Your task to perform on an android device: Go to Yahoo.com Image 0: 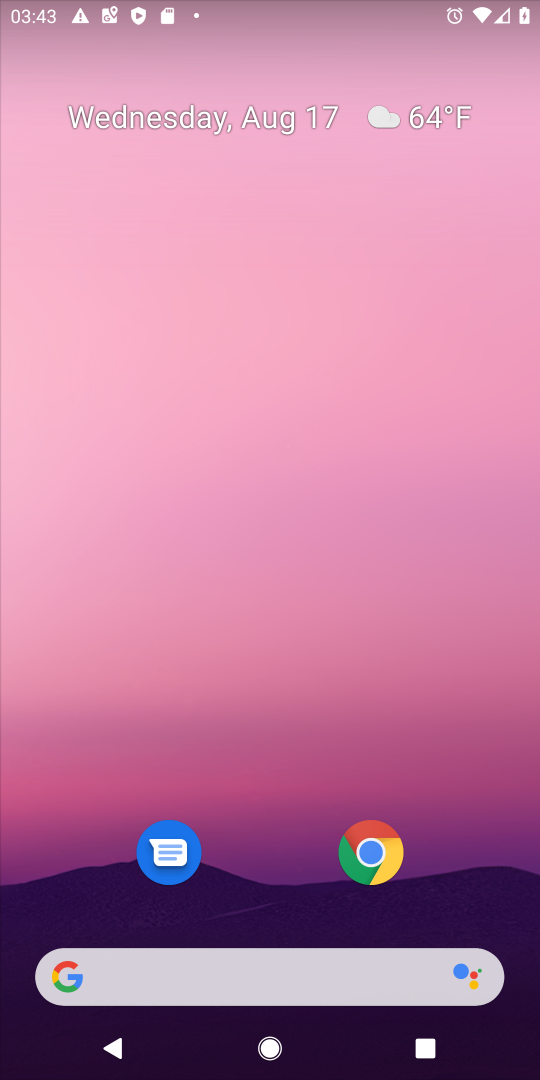
Step 0: drag from (254, 882) to (282, 32)
Your task to perform on an android device: Go to Yahoo.com Image 1: 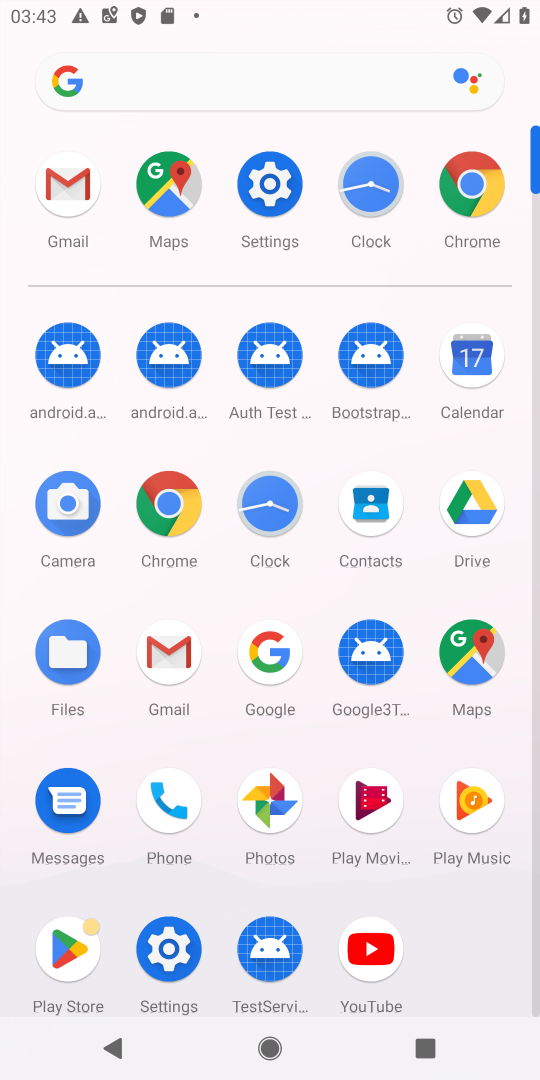
Step 1: click (163, 505)
Your task to perform on an android device: Go to Yahoo.com Image 2: 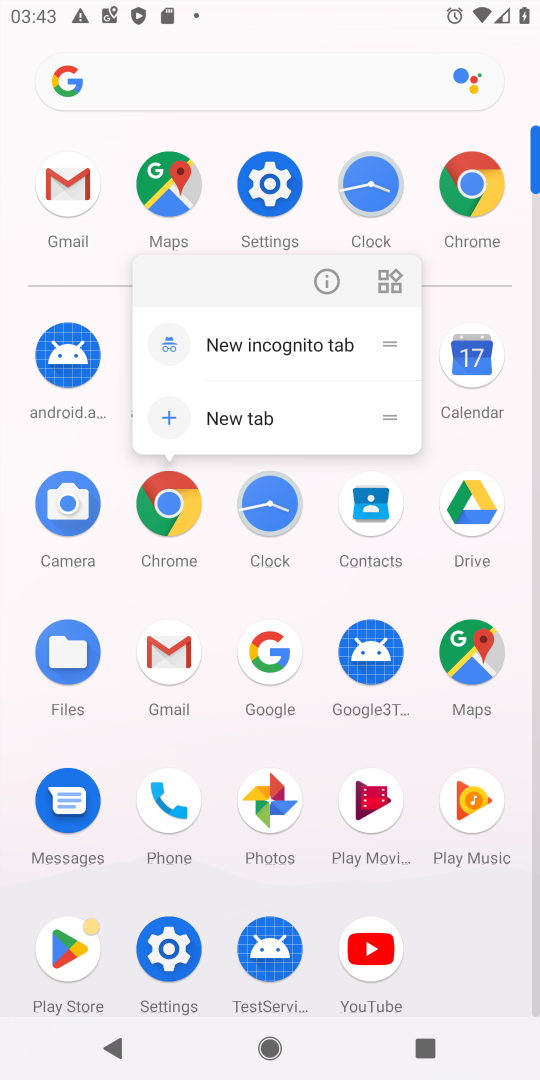
Step 2: click (164, 505)
Your task to perform on an android device: Go to Yahoo.com Image 3: 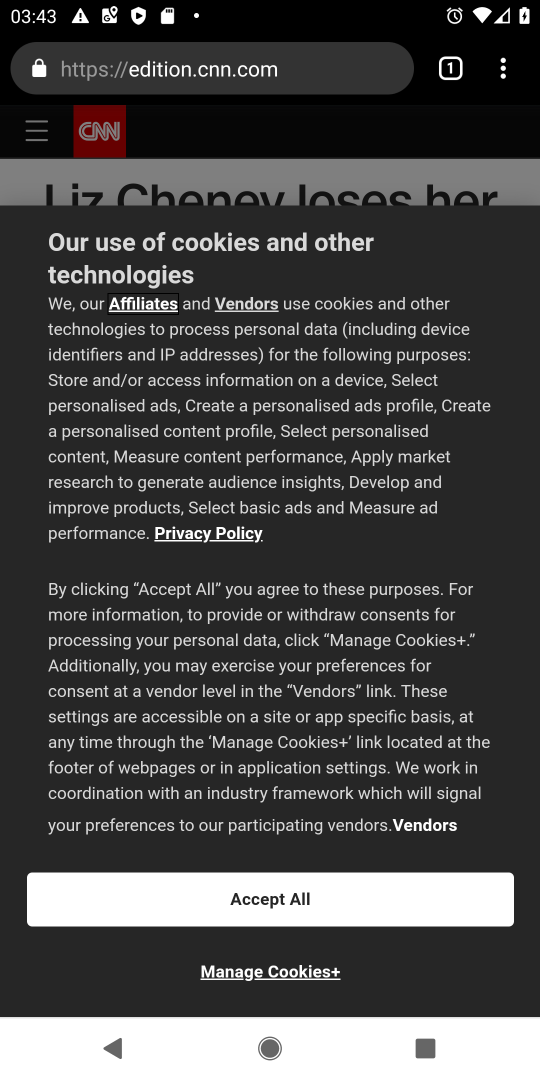
Step 3: click (252, 72)
Your task to perform on an android device: Go to Yahoo.com Image 4: 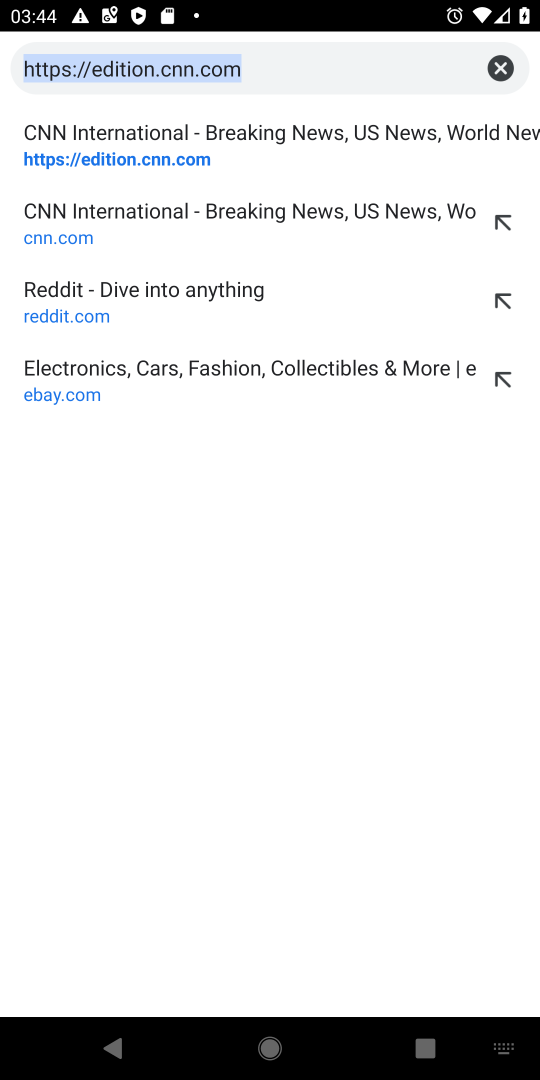
Step 4: type "yahoo.com"
Your task to perform on an android device: Go to Yahoo.com Image 5: 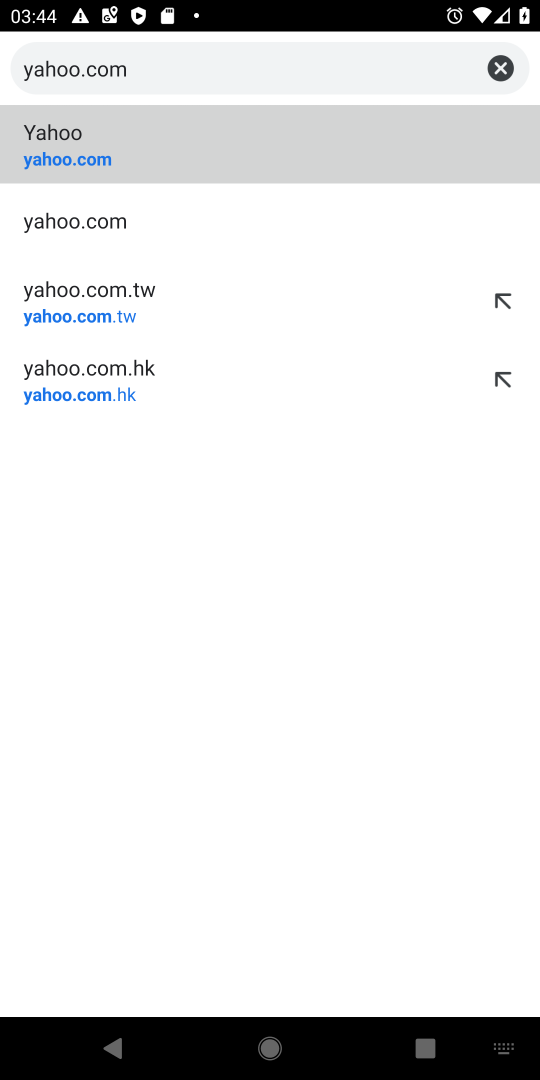
Step 5: click (75, 157)
Your task to perform on an android device: Go to Yahoo.com Image 6: 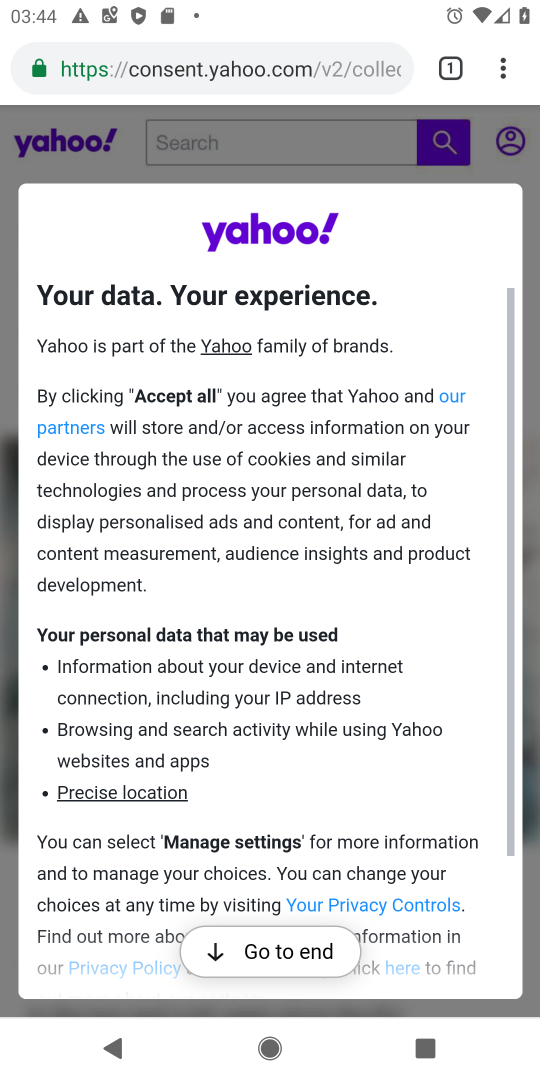
Step 6: task complete